Your task to perform on an android device: add a label to a message in the gmail app Image 0: 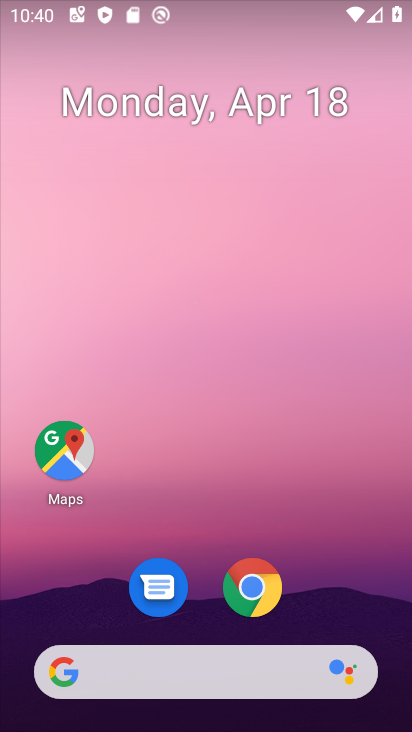
Step 0: drag from (366, 634) to (387, 232)
Your task to perform on an android device: add a label to a message in the gmail app Image 1: 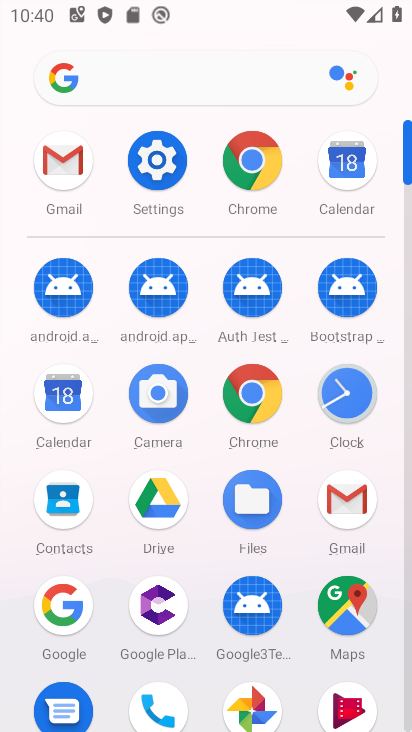
Step 1: click (353, 499)
Your task to perform on an android device: add a label to a message in the gmail app Image 2: 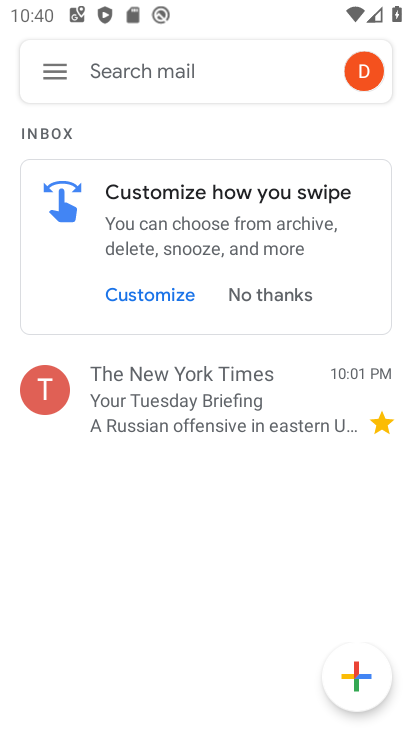
Step 2: click (54, 71)
Your task to perform on an android device: add a label to a message in the gmail app Image 3: 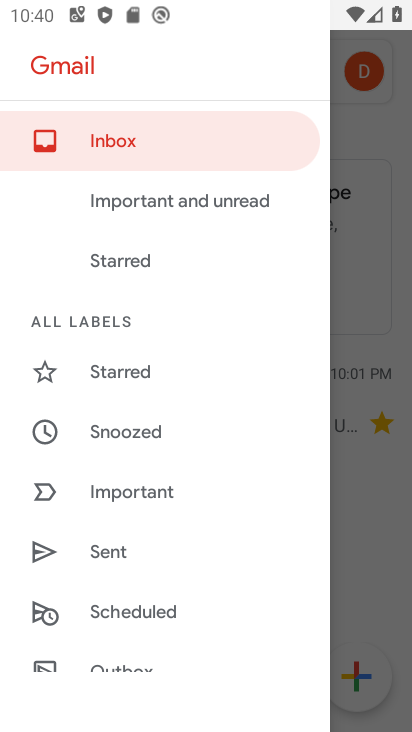
Step 3: click (378, 502)
Your task to perform on an android device: add a label to a message in the gmail app Image 4: 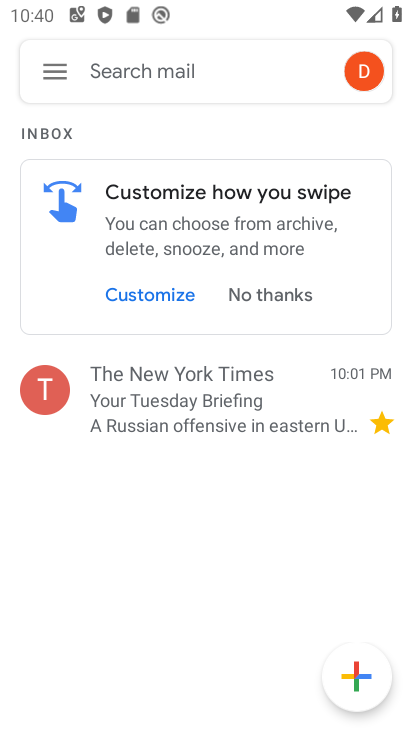
Step 4: click (322, 424)
Your task to perform on an android device: add a label to a message in the gmail app Image 5: 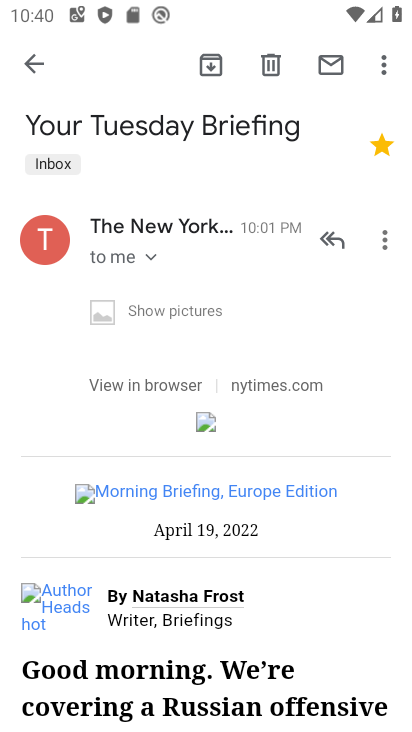
Step 5: click (375, 71)
Your task to perform on an android device: add a label to a message in the gmail app Image 6: 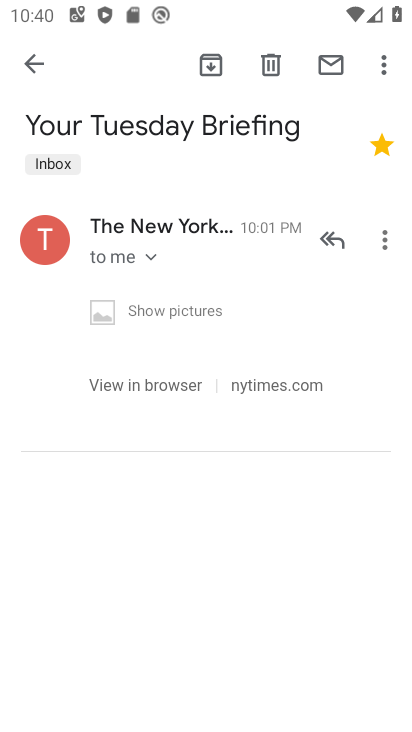
Step 6: click (384, 70)
Your task to perform on an android device: add a label to a message in the gmail app Image 7: 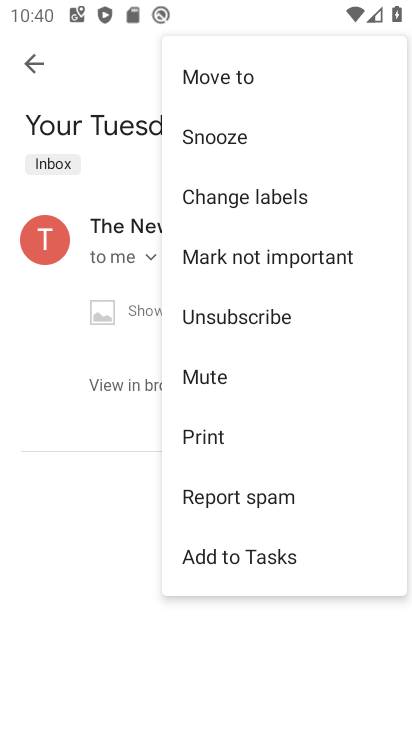
Step 7: click (229, 132)
Your task to perform on an android device: add a label to a message in the gmail app Image 8: 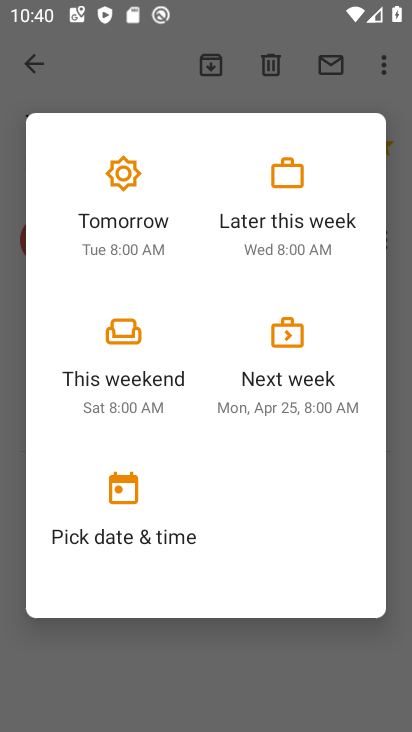
Step 8: click (123, 202)
Your task to perform on an android device: add a label to a message in the gmail app Image 9: 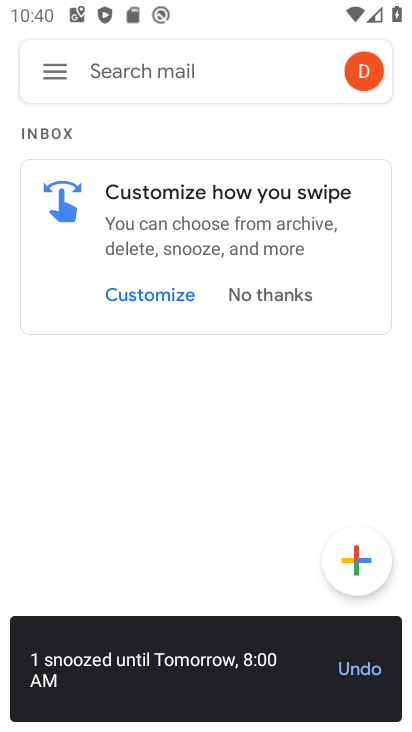
Step 9: task complete